Your task to perform on an android device: Turn on the flashlight Image 0: 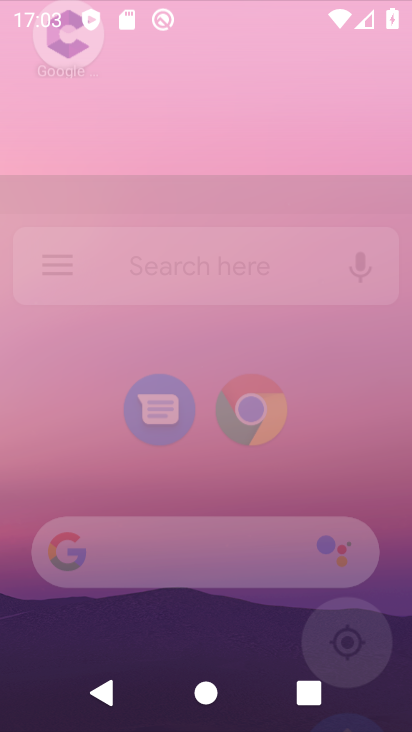
Step 0: drag from (291, 144) to (231, 20)
Your task to perform on an android device: Turn on the flashlight Image 1: 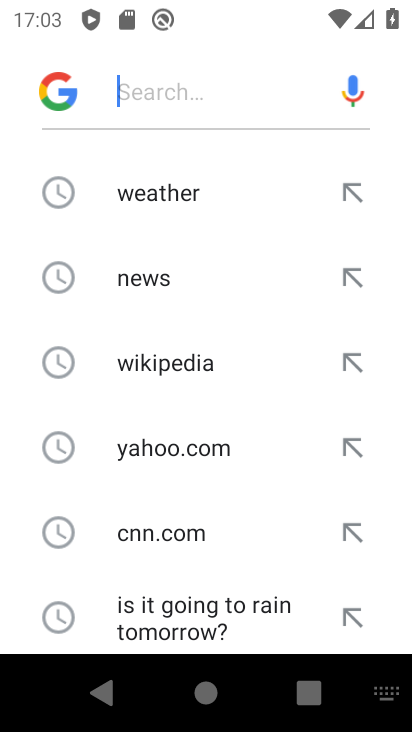
Step 1: press home button
Your task to perform on an android device: Turn on the flashlight Image 2: 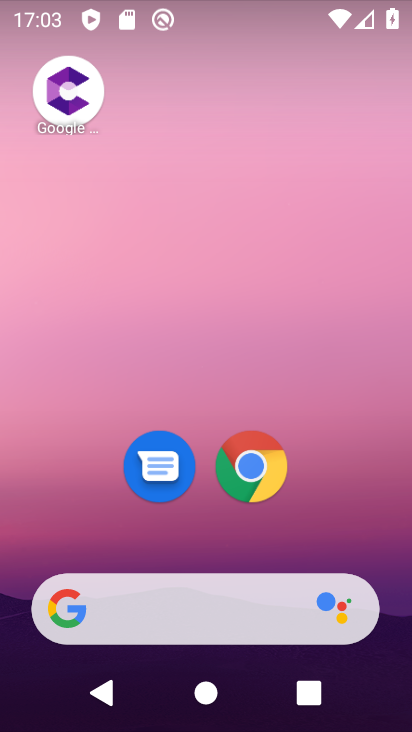
Step 2: drag from (347, 515) to (235, 73)
Your task to perform on an android device: Turn on the flashlight Image 3: 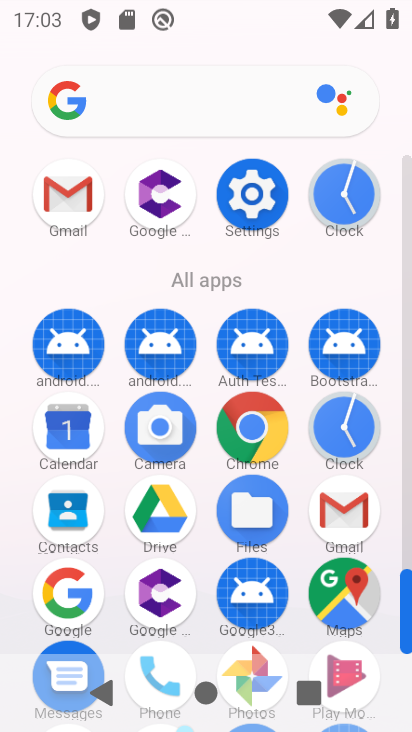
Step 3: click (247, 190)
Your task to perform on an android device: Turn on the flashlight Image 4: 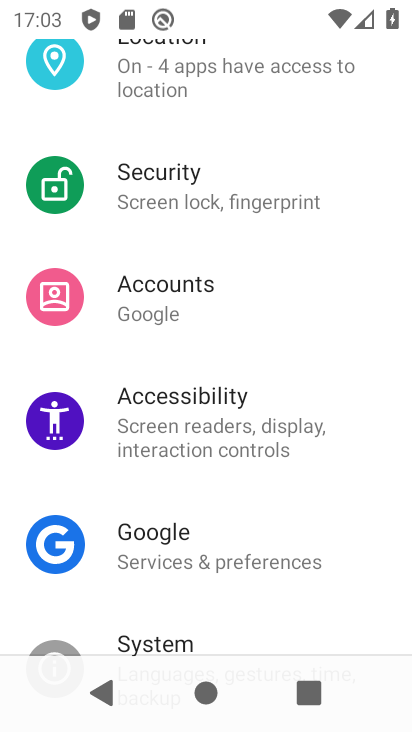
Step 4: drag from (181, 148) to (166, 523)
Your task to perform on an android device: Turn on the flashlight Image 5: 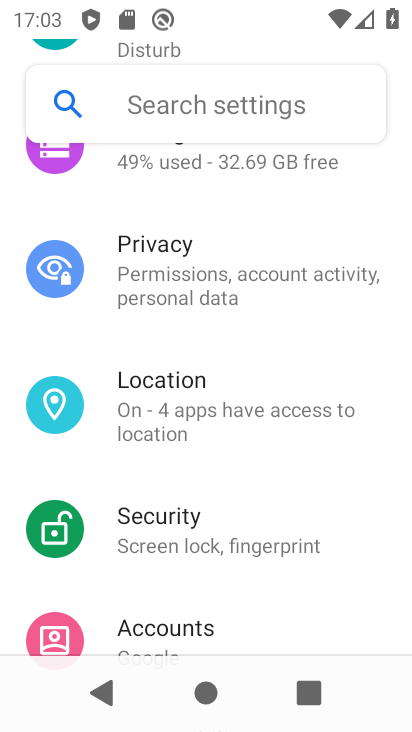
Step 5: drag from (248, 216) to (253, 681)
Your task to perform on an android device: Turn on the flashlight Image 6: 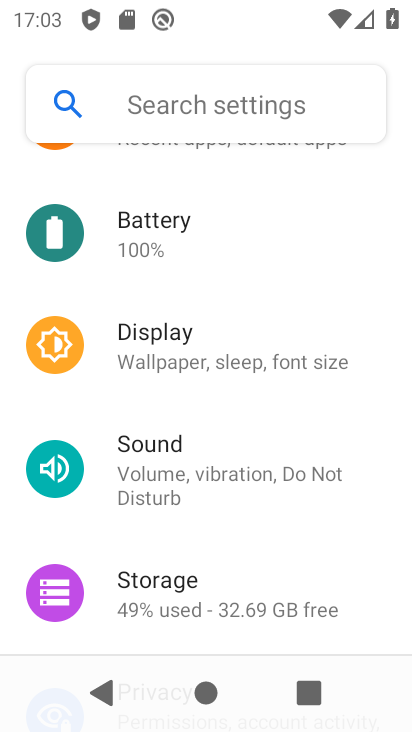
Step 6: click (200, 368)
Your task to perform on an android device: Turn on the flashlight Image 7: 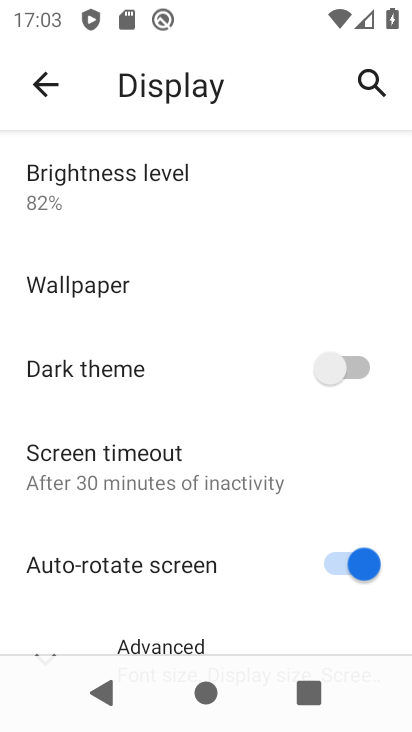
Step 7: task complete